Your task to perform on an android device: Go to Google maps Image 0: 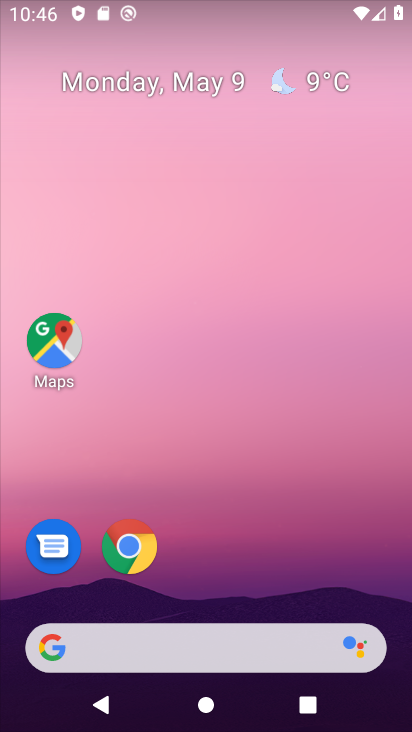
Step 0: click (224, 207)
Your task to perform on an android device: Go to Google maps Image 1: 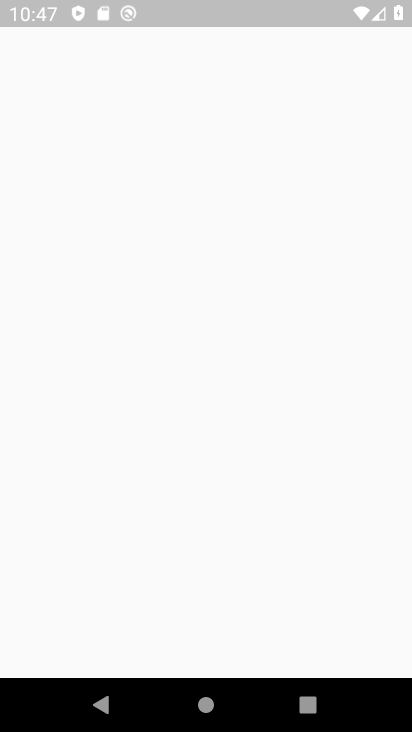
Step 1: press home button
Your task to perform on an android device: Go to Google maps Image 2: 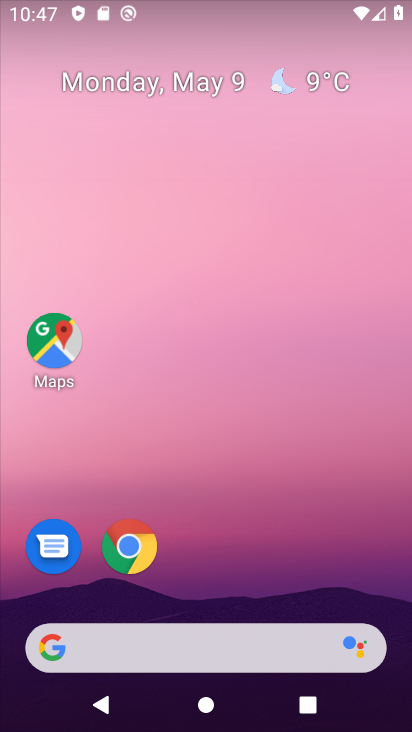
Step 2: drag from (227, 711) to (229, 237)
Your task to perform on an android device: Go to Google maps Image 3: 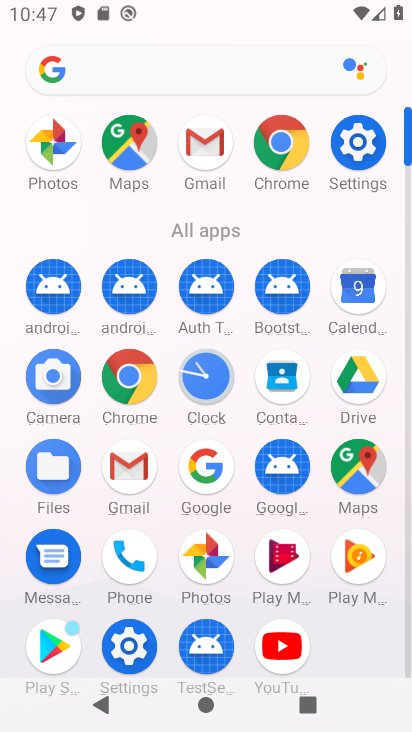
Step 3: click (363, 456)
Your task to perform on an android device: Go to Google maps Image 4: 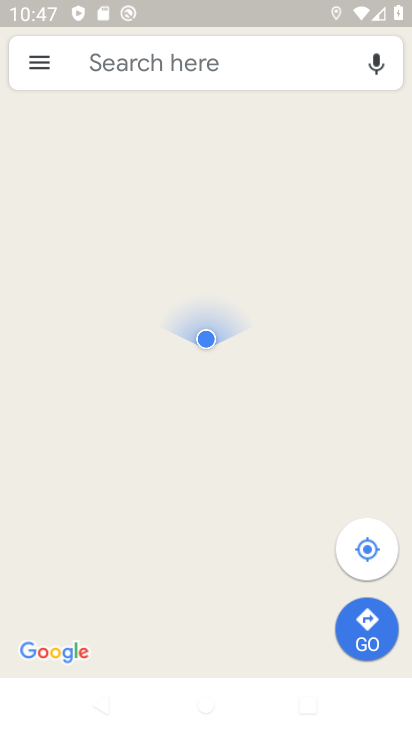
Step 4: task complete